Your task to perform on an android device: Open Google Chrome Image 0: 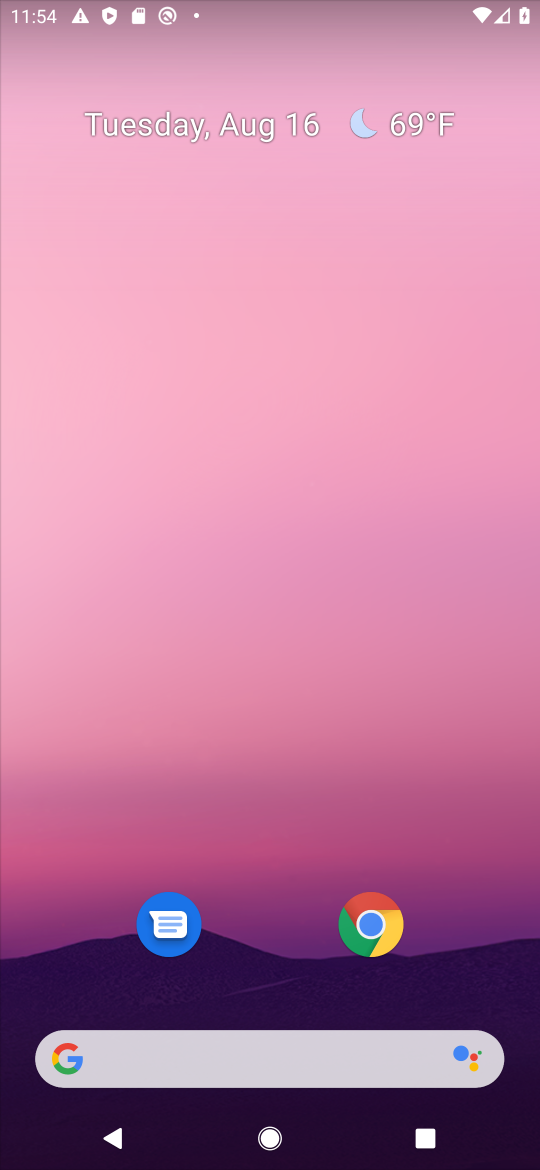
Step 0: click (380, 931)
Your task to perform on an android device: Open Google Chrome Image 1: 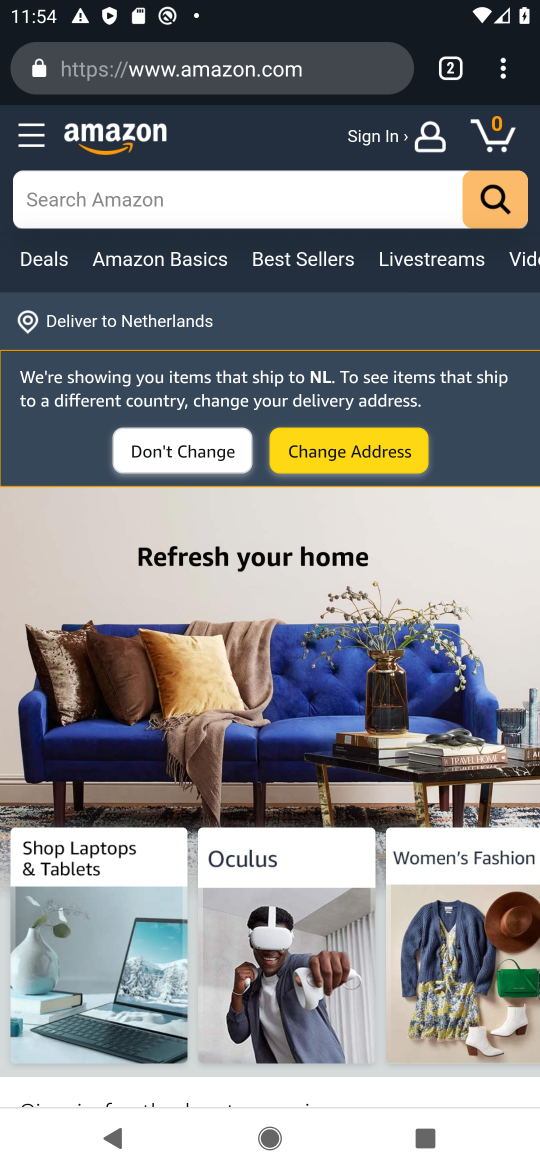
Step 1: task complete